Your task to perform on an android device: View the shopping cart on bestbuy. Add acer predator to the cart on bestbuy Image 0: 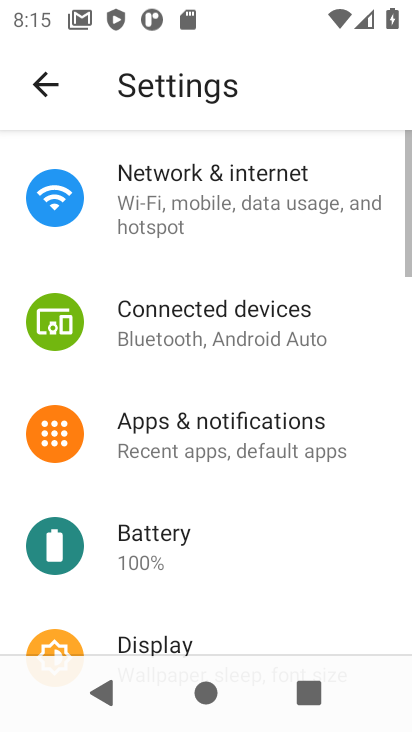
Step 0: click (246, 474)
Your task to perform on an android device: View the shopping cart on bestbuy. Add acer predator to the cart on bestbuy Image 1: 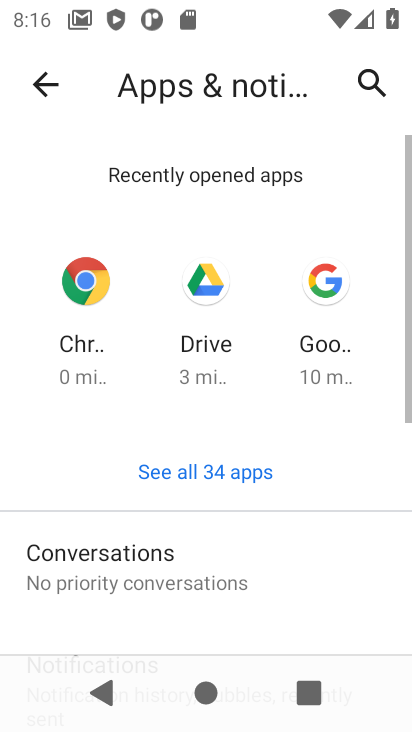
Step 1: press home button
Your task to perform on an android device: View the shopping cart on bestbuy. Add acer predator to the cart on bestbuy Image 2: 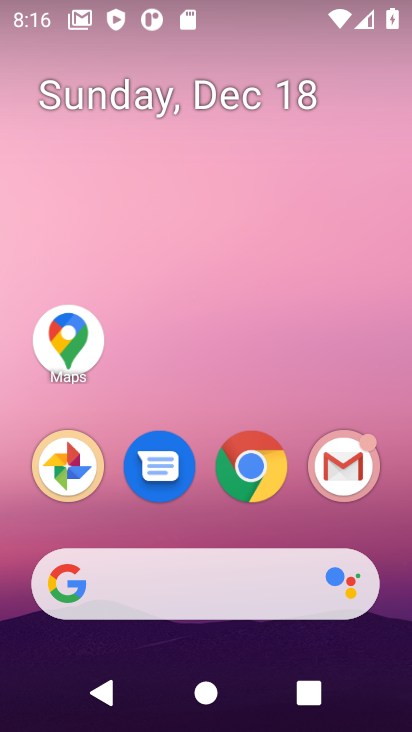
Step 2: click (275, 458)
Your task to perform on an android device: View the shopping cart on bestbuy. Add acer predator to the cart on bestbuy Image 3: 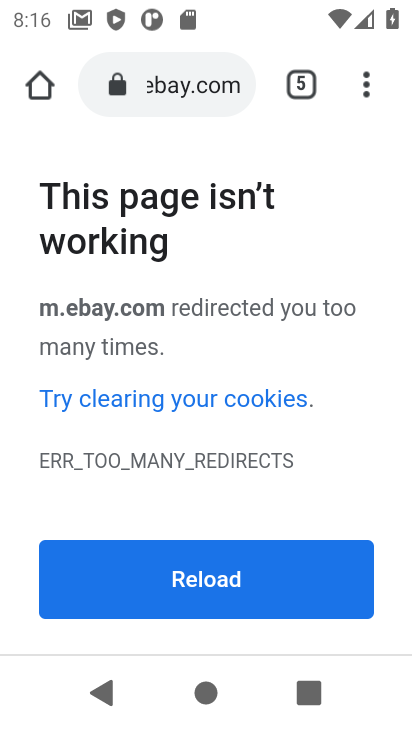
Step 3: click (195, 87)
Your task to perform on an android device: View the shopping cart on bestbuy. Add acer predator to the cart on bestbuy Image 4: 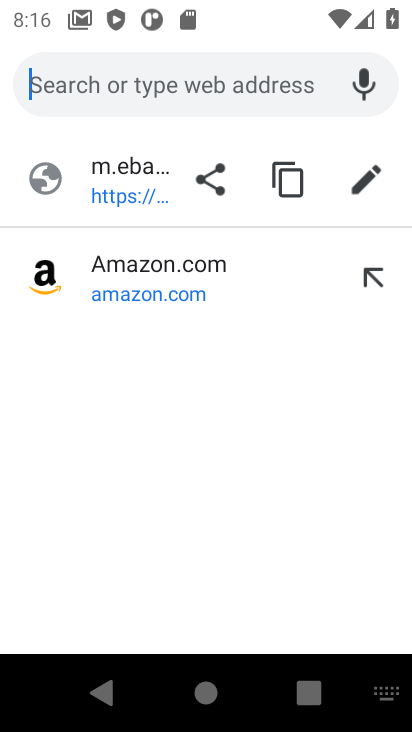
Step 4: type "bestbuy"
Your task to perform on an android device: View the shopping cart on bestbuy. Add acer predator to the cart on bestbuy Image 5: 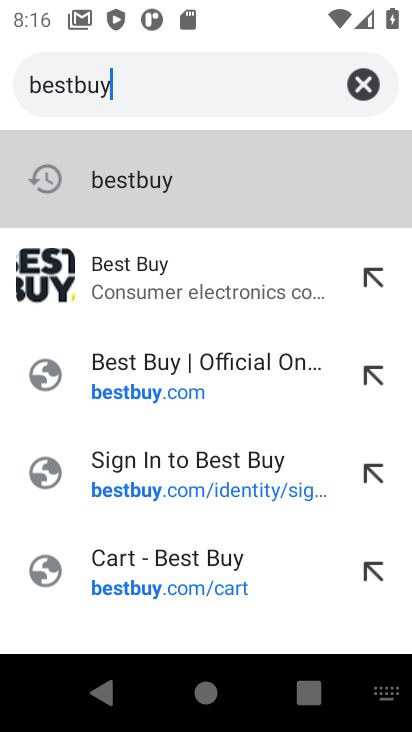
Step 5: click (163, 365)
Your task to perform on an android device: View the shopping cart on bestbuy. Add acer predator to the cart on bestbuy Image 6: 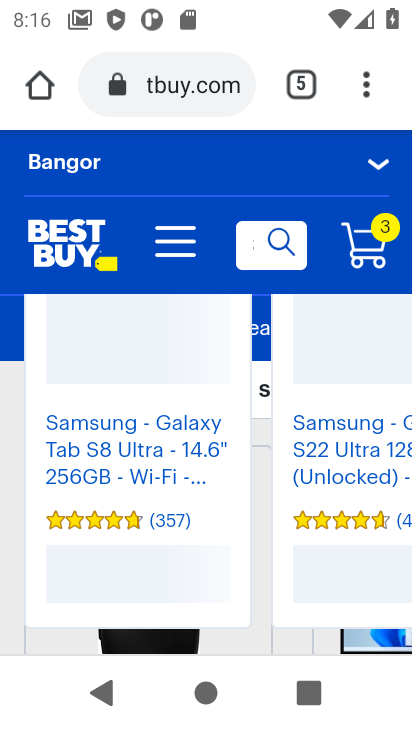
Step 6: click (276, 244)
Your task to perform on an android device: View the shopping cart on bestbuy. Add acer predator to the cart on bestbuy Image 7: 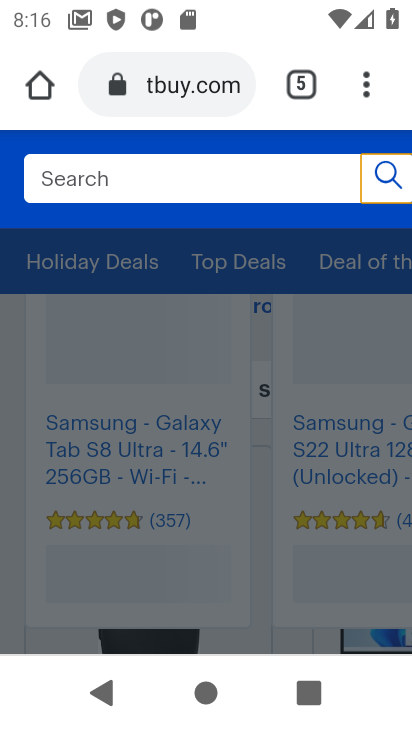
Step 7: click (161, 178)
Your task to perform on an android device: View the shopping cart on bestbuy. Add acer predator to the cart on bestbuy Image 8: 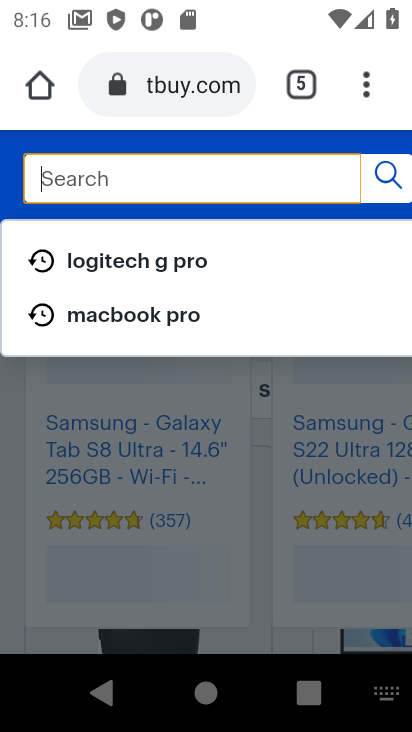
Step 8: type "acer predator"
Your task to perform on an android device: View the shopping cart on bestbuy. Add acer predator to the cart on bestbuy Image 9: 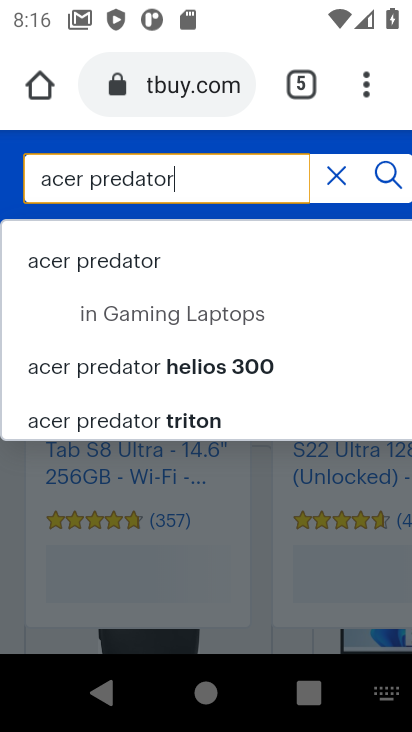
Step 9: click (132, 267)
Your task to perform on an android device: View the shopping cart on bestbuy. Add acer predator to the cart on bestbuy Image 10: 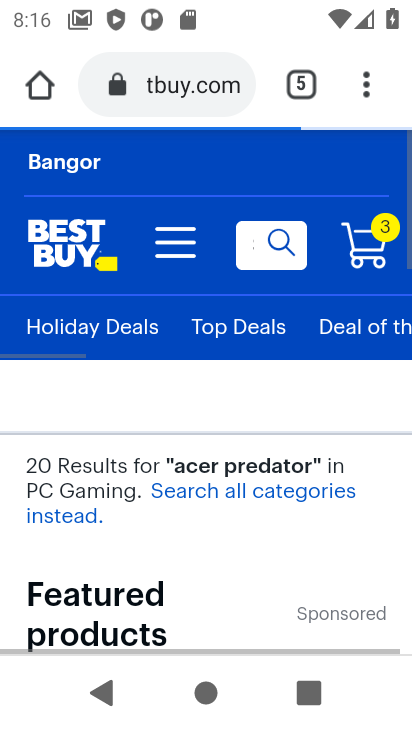
Step 10: click (386, 175)
Your task to perform on an android device: View the shopping cart on bestbuy. Add acer predator to the cart on bestbuy Image 11: 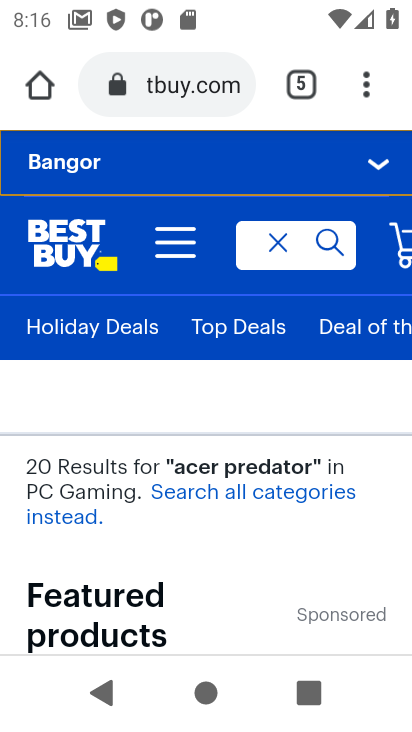
Step 11: drag from (238, 552) to (208, 265)
Your task to perform on an android device: View the shopping cart on bestbuy. Add acer predator to the cart on bestbuy Image 12: 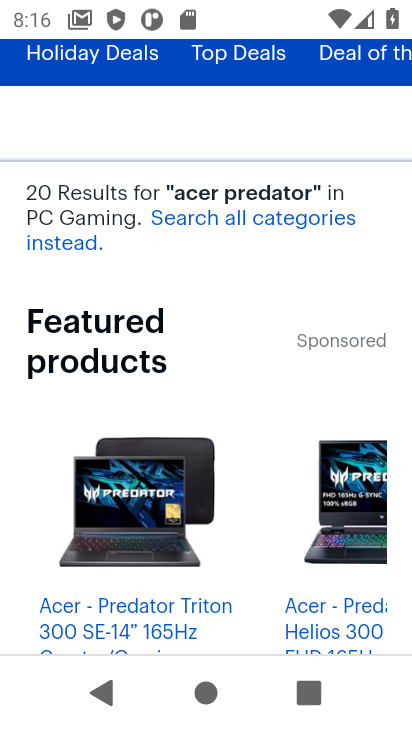
Step 12: drag from (203, 629) to (224, 494)
Your task to perform on an android device: View the shopping cart on bestbuy. Add acer predator to the cart on bestbuy Image 13: 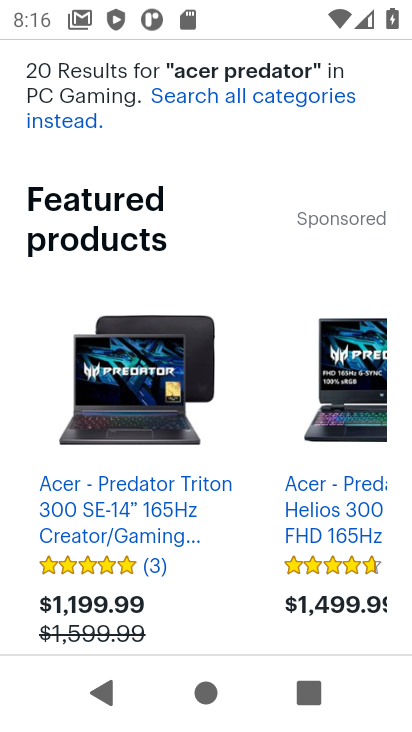
Step 13: drag from (234, 617) to (189, 42)
Your task to perform on an android device: View the shopping cart on bestbuy. Add acer predator to the cart on bestbuy Image 14: 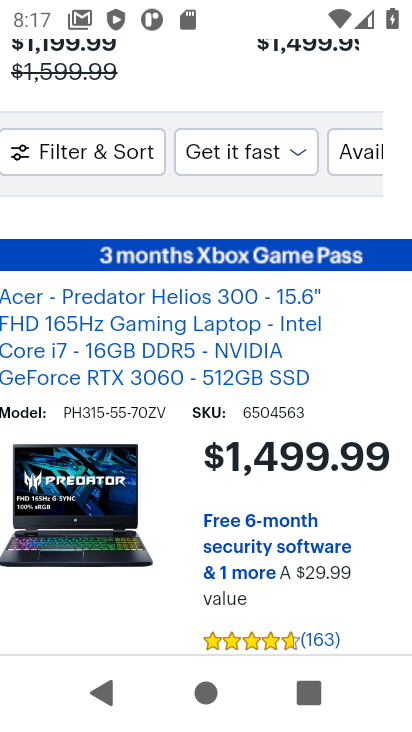
Step 14: click (336, 379)
Your task to perform on an android device: View the shopping cart on bestbuy. Add acer predator to the cart on bestbuy Image 15: 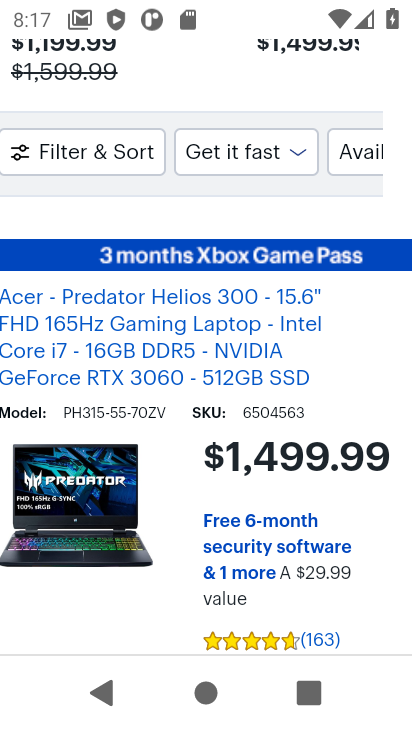
Step 15: click (169, 389)
Your task to perform on an android device: View the shopping cart on bestbuy. Add acer predator to the cart on bestbuy Image 16: 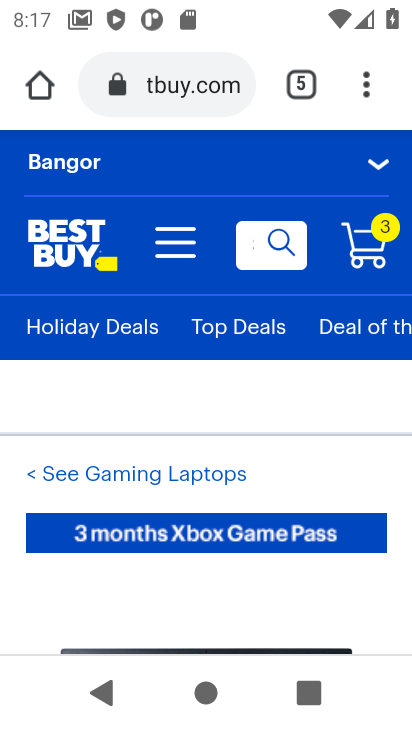
Step 16: drag from (244, 562) to (225, 137)
Your task to perform on an android device: View the shopping cart on bestbuy. Add acer predator to the cart on bestbuy Image 17: 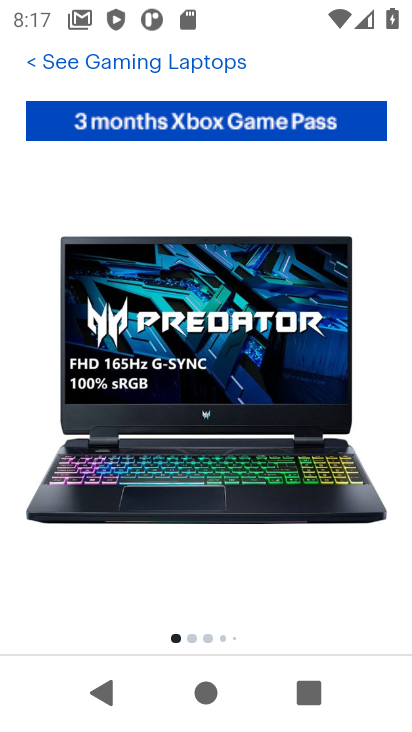
Step 17: drag from (236, 579) to (264, 394)
Your task to perform on an android device: View the shopping cart on bestbuy. Add acer predator to the cart on bestbuy Image 18: 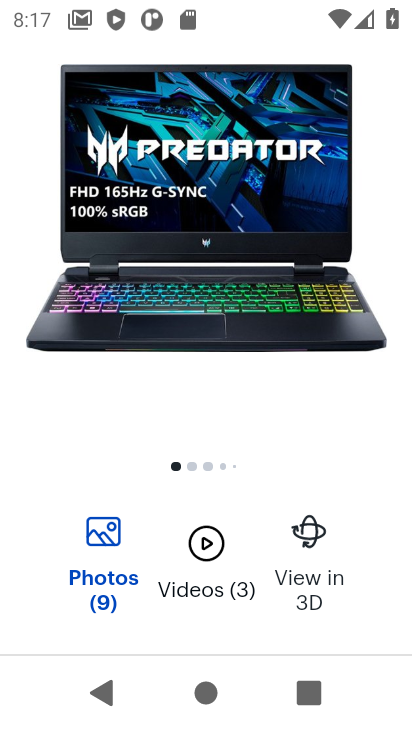
Step 18: drag from (224, 635) to (219, 334)
Your task to perform on an android device: View the shopping cart on bestbuy. Add acer predator to the cart on bestbuy Image 19: 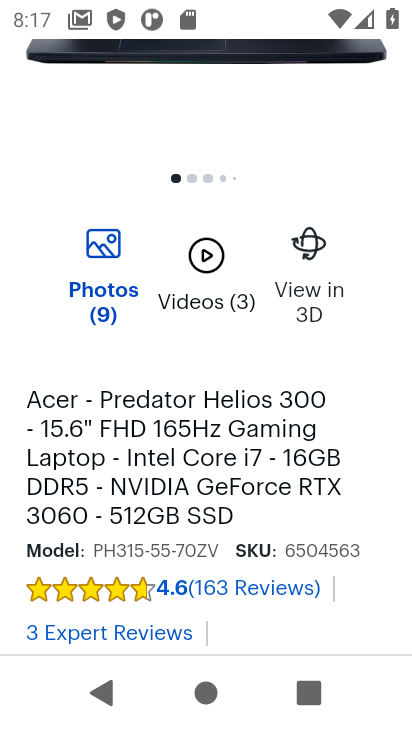
Step 19: drag from (286, 608) to (260, 161)
Your task to perform on an android device: View the shopping cart on bestbuy. Add acer predator to the cart on bestbuy Image 20: 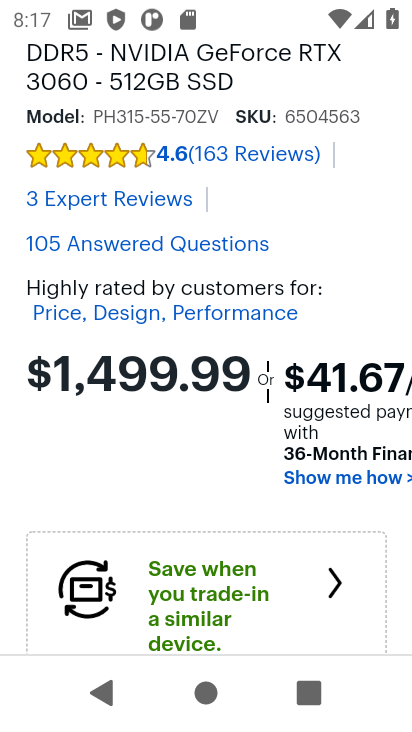
Step 20: drag from (212, 503) to (205, 90)
Your task to perform on an android device: View the shopping cart on bestbuy. Add acer predator to the cart on bestbuy Image 21: 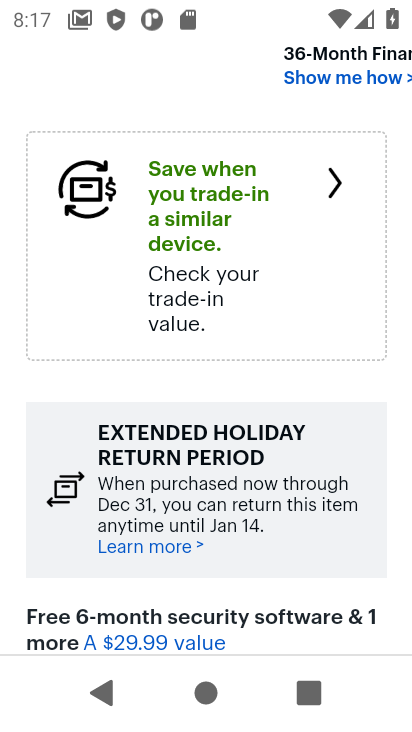
Step 21: drag from (201, 588) to (235, 146)
Your task to perform on an android device: View the shopping cart on bestbuy. Add acer predator to the cart on bestbuy Image 22: 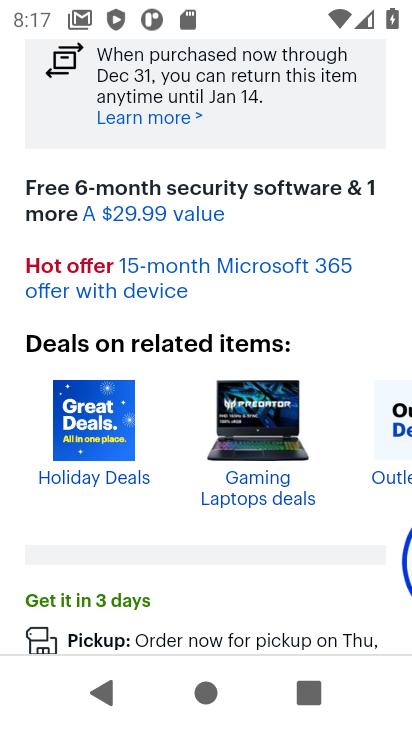
Step 22: drag from (179, 593) to (205, 185)
Your task to perform on an android device: View the shopping cart on bestbuy. Add acer predator to the cart on bestbuy Image 23: 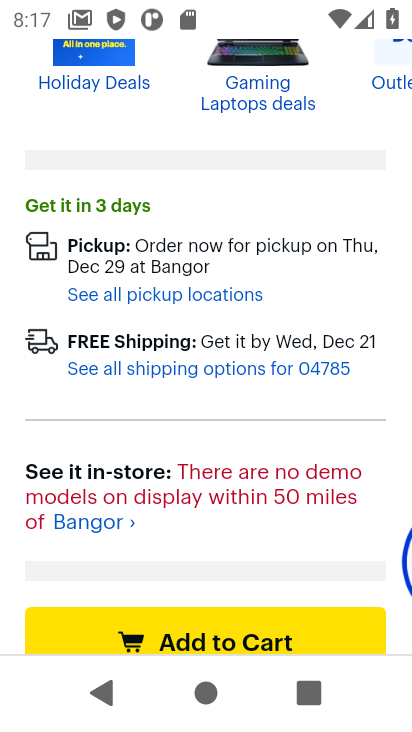
Step 23: click (215, 628)
Your task to perform on an android device: View the shopping cart on bestbuy. Add acer predator to the cart on bestbuy Image 24: 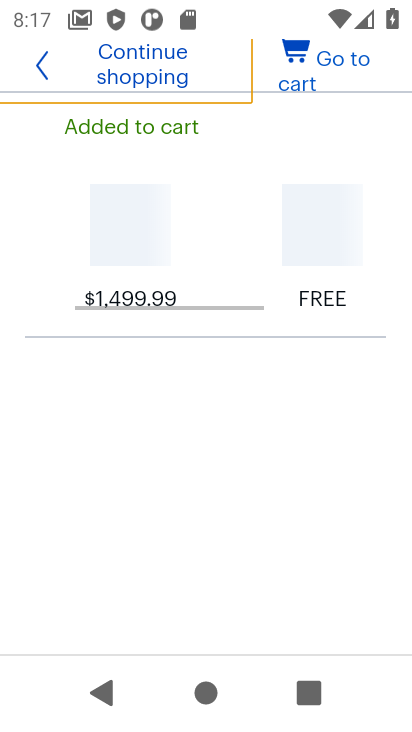
Step 24: task complete